Your task to perform on an android device: Open CNN.com Image 0: 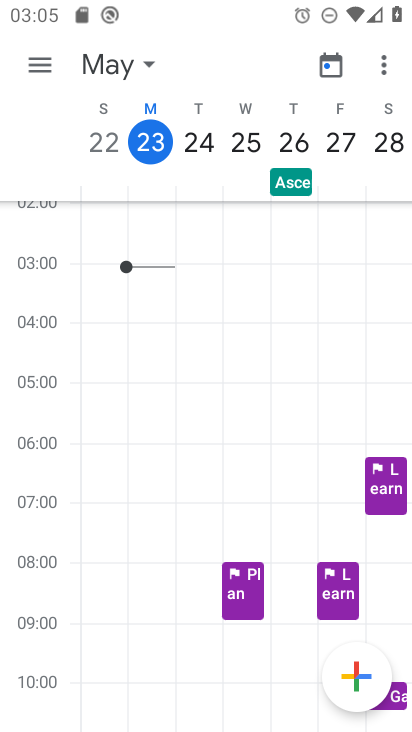
Step 0: press home button
Your task to perform on an android device: Open CNN.com Image 1: 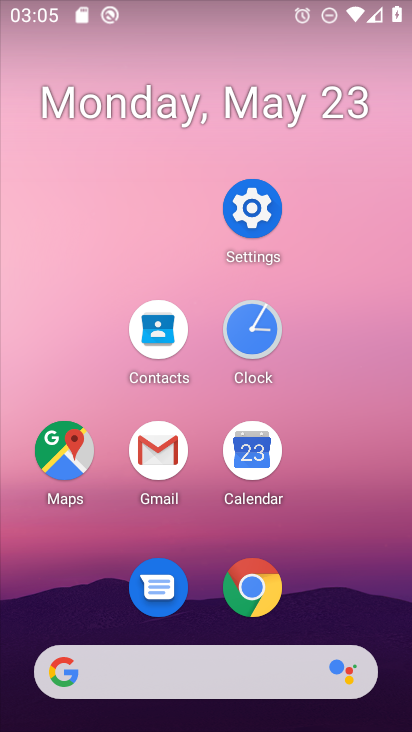
Step 1: click (155, 675)
Your task to perform on an android device: Open CNN.com Image 2: 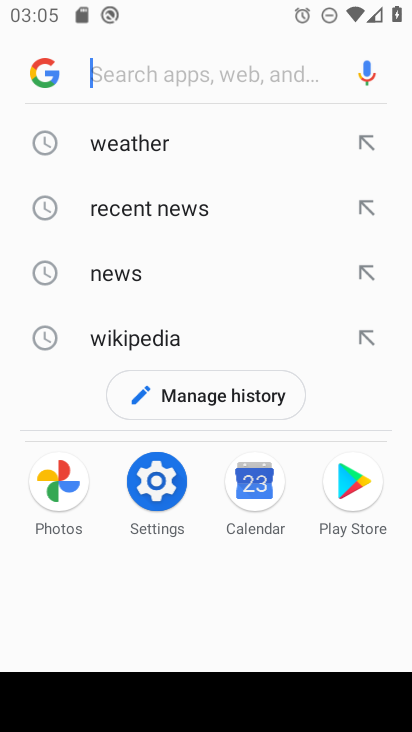
Step 2: type "cnn.com"
Your task to perform on an android device: Open CNN.com Image 3: 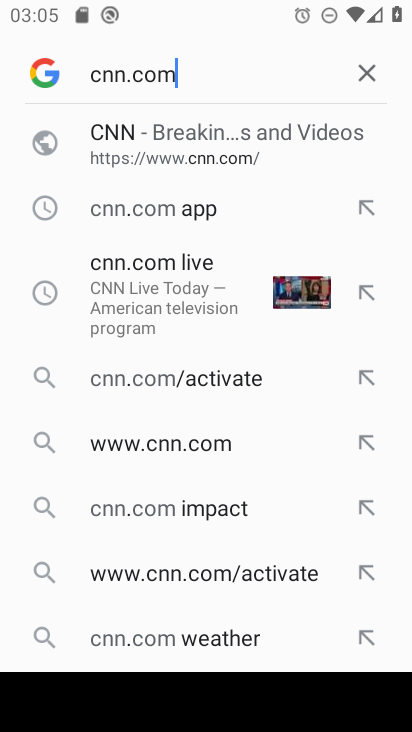
Step 3: click (162, 157)
Your task to perform on an android device: Open CNN.com Image 4: 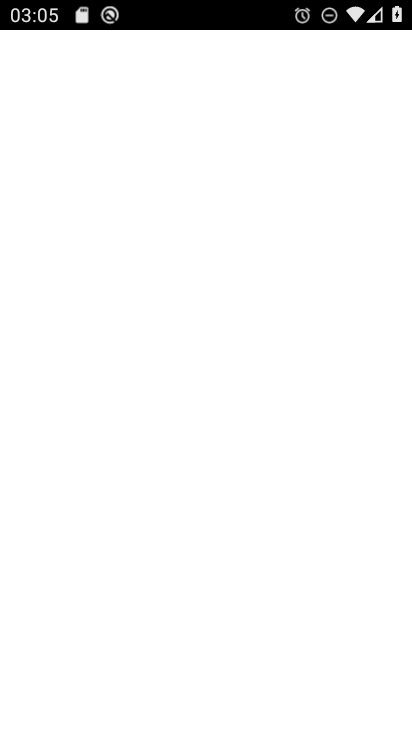
Step 4: task complete